Your task to perform on an android device: Open Yahoo.com Image 0: 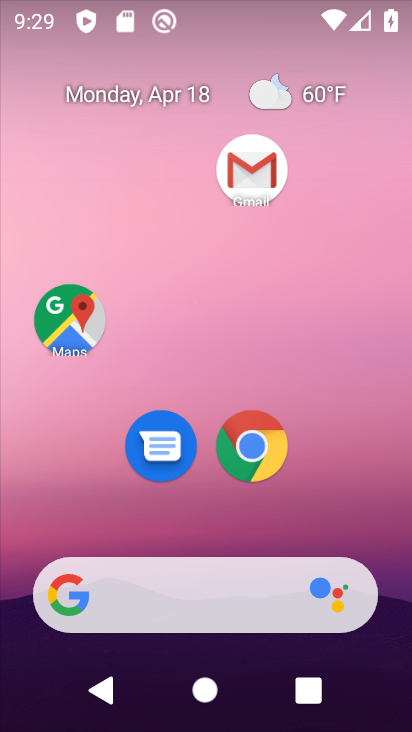
Step 0: drag from (273, 526) to (362, 132)
Your task to perform on an android device: Open Yahoo.com Image 1: 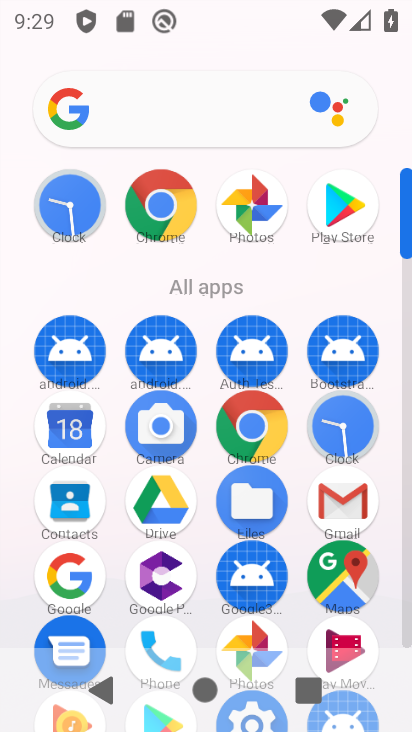
Step 1: click (243, 433)
Your task to perform on an android device: Open Yahoo.com Image 2: 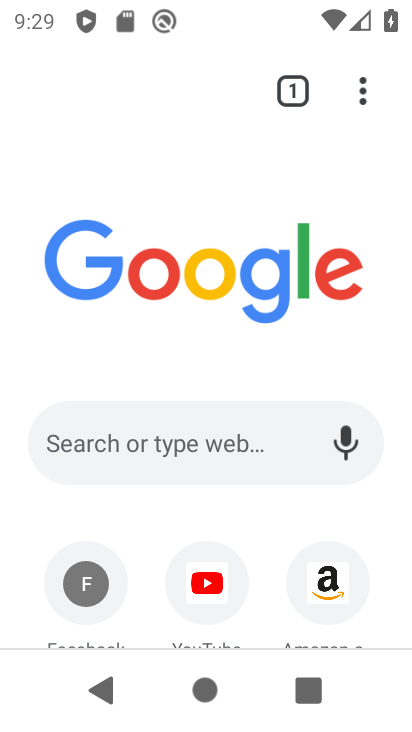
Step 2: drag from (234, 551) to (276, 156)
Your task to perform on an android device: Open Yahoo.com Image 3: 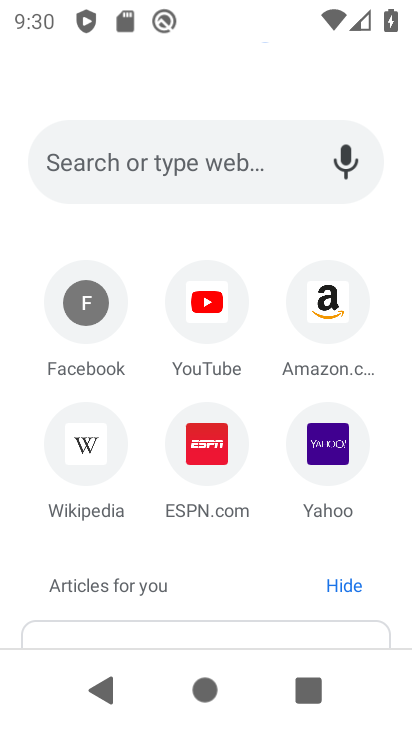
Step 3: click (331, 469)
Your task to perform on an android device: Open Yahoo.com Image 4: 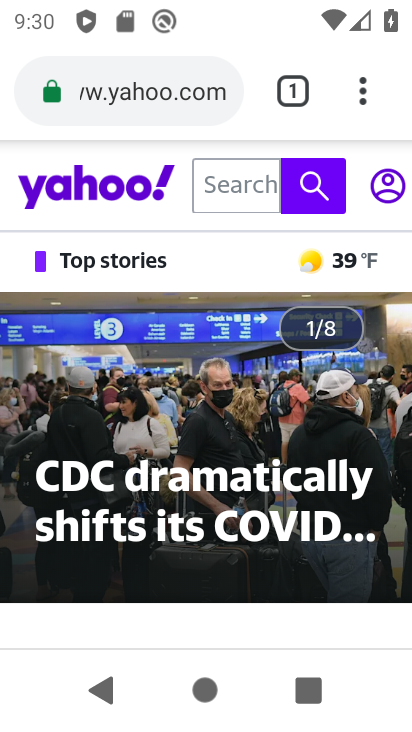
Step 4: task complete